Your task to perform on an android device: find snoozed emails in the gmail app Image 0: 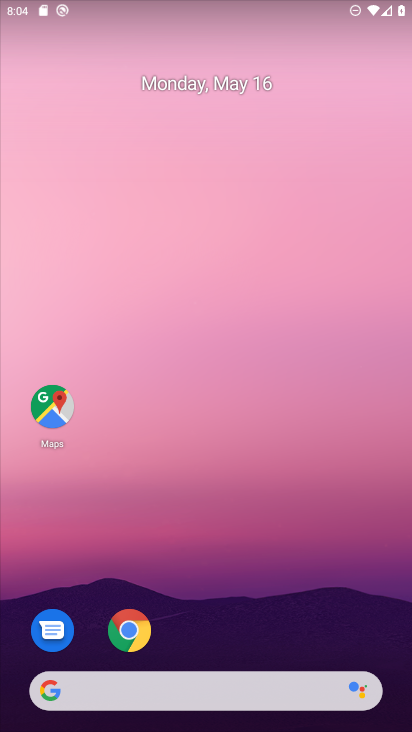
Step 0: drag from (267, 593) to (243, 100)
Your task to perform on an android device: find snoozed emails in the gmail app Image 1: 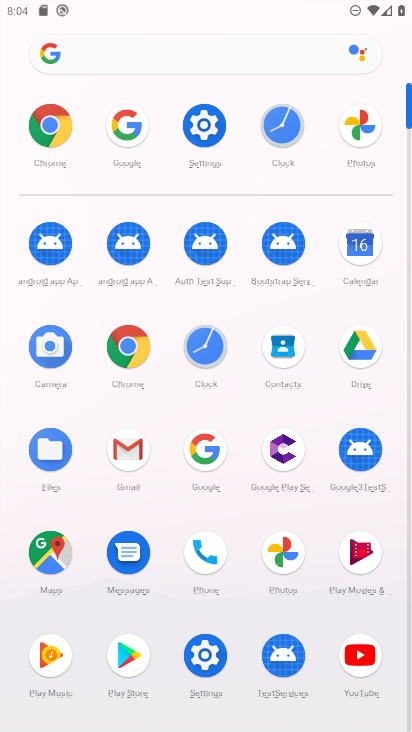
Step 1: click (135, 441)
Your task to perform on an android device: find snoozed emails in the gmail app Image 2: 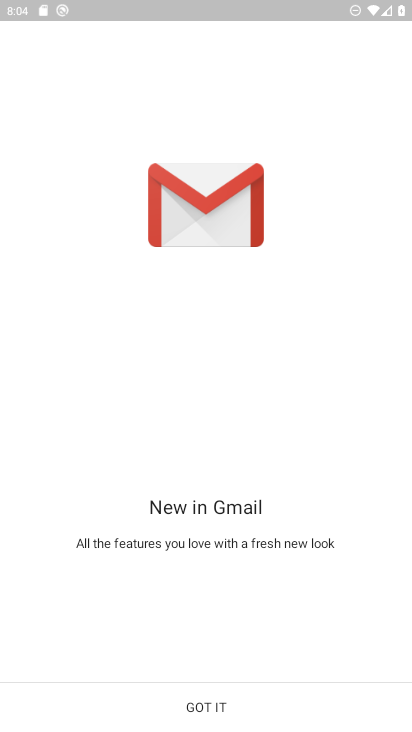
Step 2: drag from (262, 576) to (306, 169)
Your task to perform on an android device: find snoozed emails in the gmail app Image 3: 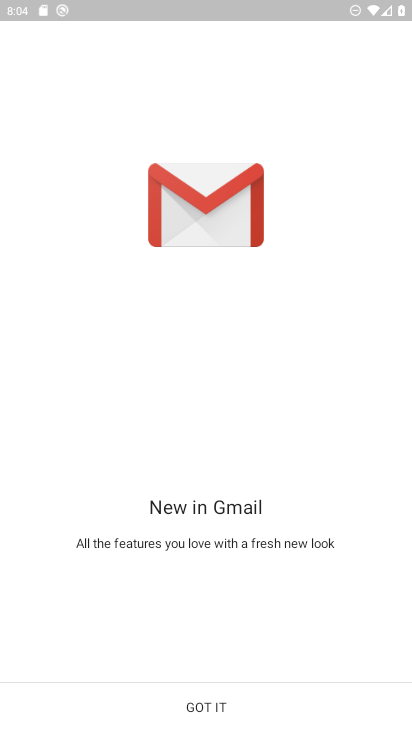
Step 3: drag from (325, 128) to (309, 432)
Your task to perform on an android device: find snoozed emails in the gmail app Image 4: 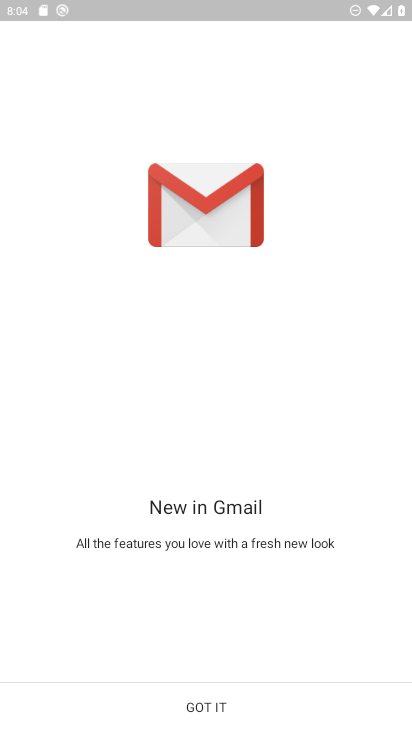
Step 4: drag from (11, 229) to (242, 216)
Your task to perform on an android device: find snoozed emails in the gmail app Image 5: 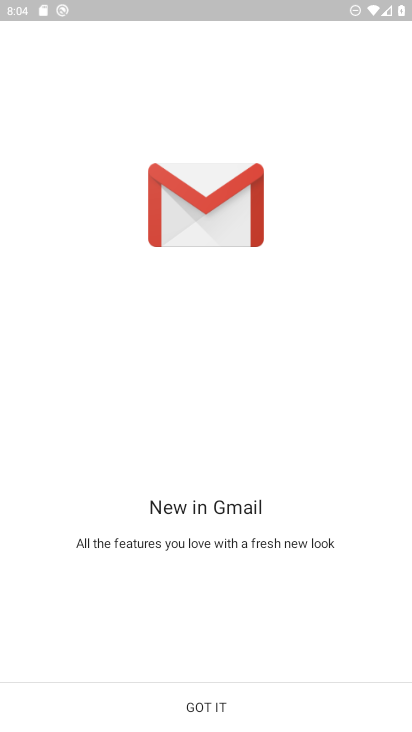
Step 5: click (210, 701)
Your task to perform on an android device: find snoozed emails in the gmail app Image 6: 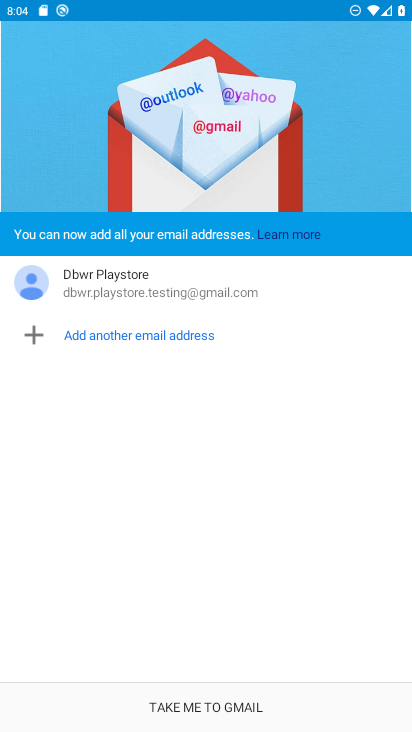
Step 6: task complete